Your task to perform on an android device: Show the shopping cart on amazon. Add "alienware area 51" to the cart on amazon, then select checkout. Image 0: 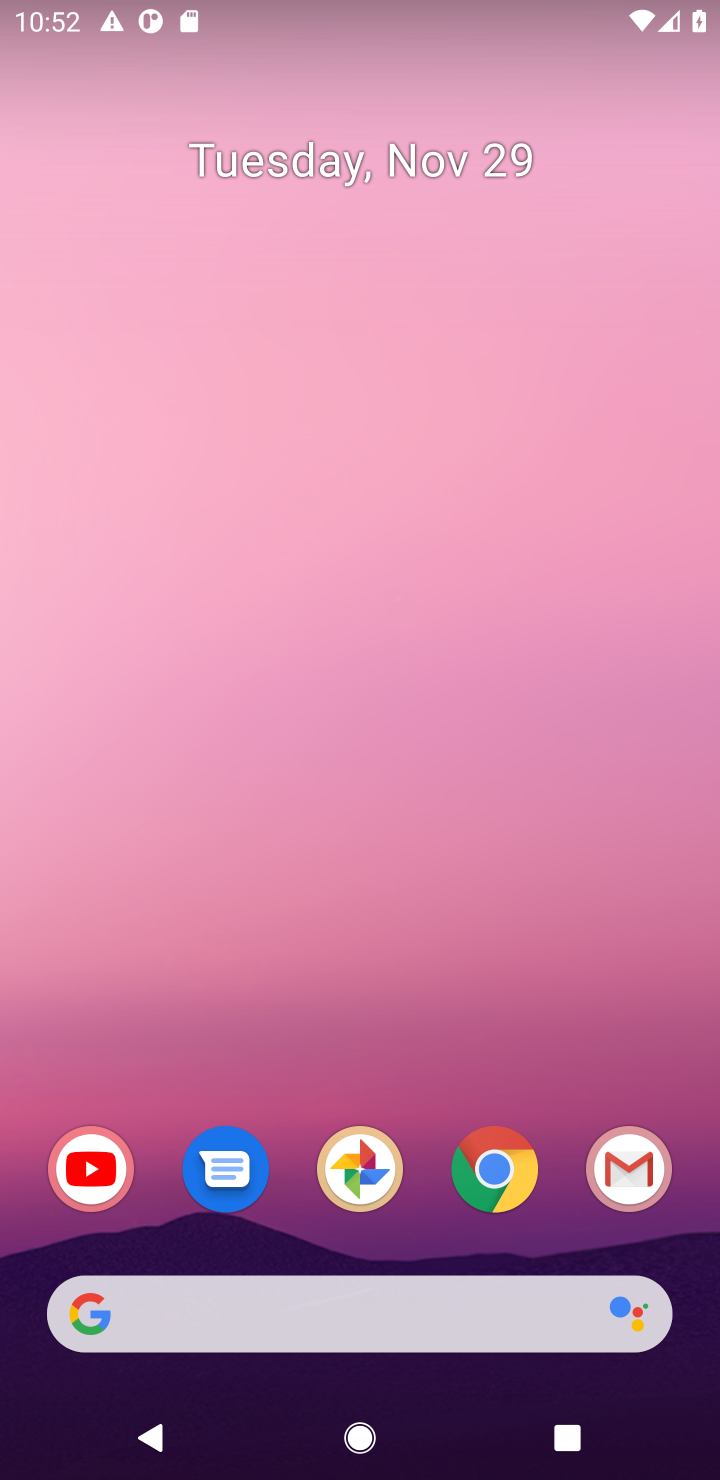
Step 0: click (356, 1308)
Your task to perform on an android device: Show the shopping cart on amazon. Add "alienware area 51" to the cart on amazon, then select checkout. Image 1: 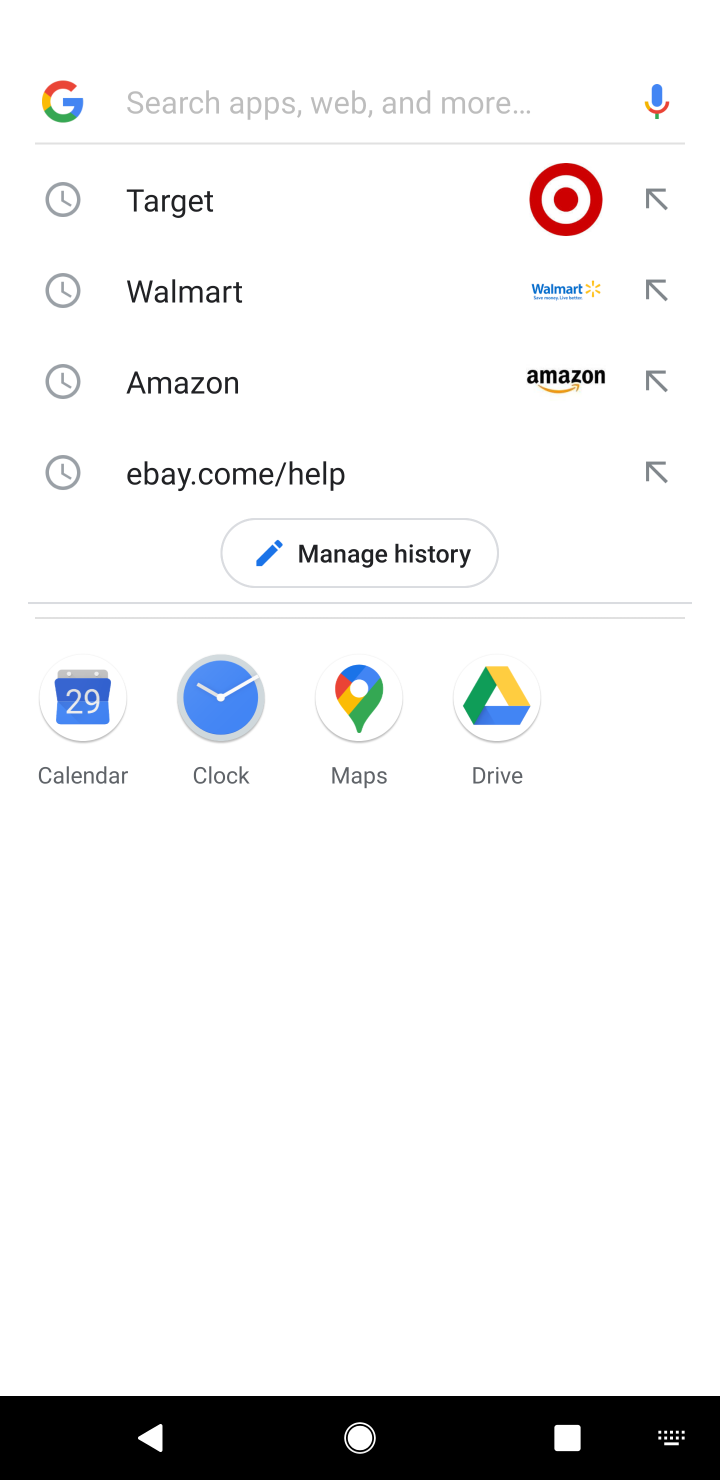
Step 1: click (211, 381)
Your task to perform on an android device: Show the shopping cart on amazon. Add "alienware area 51" to the cart on amazon, then select checkout. Image 2: 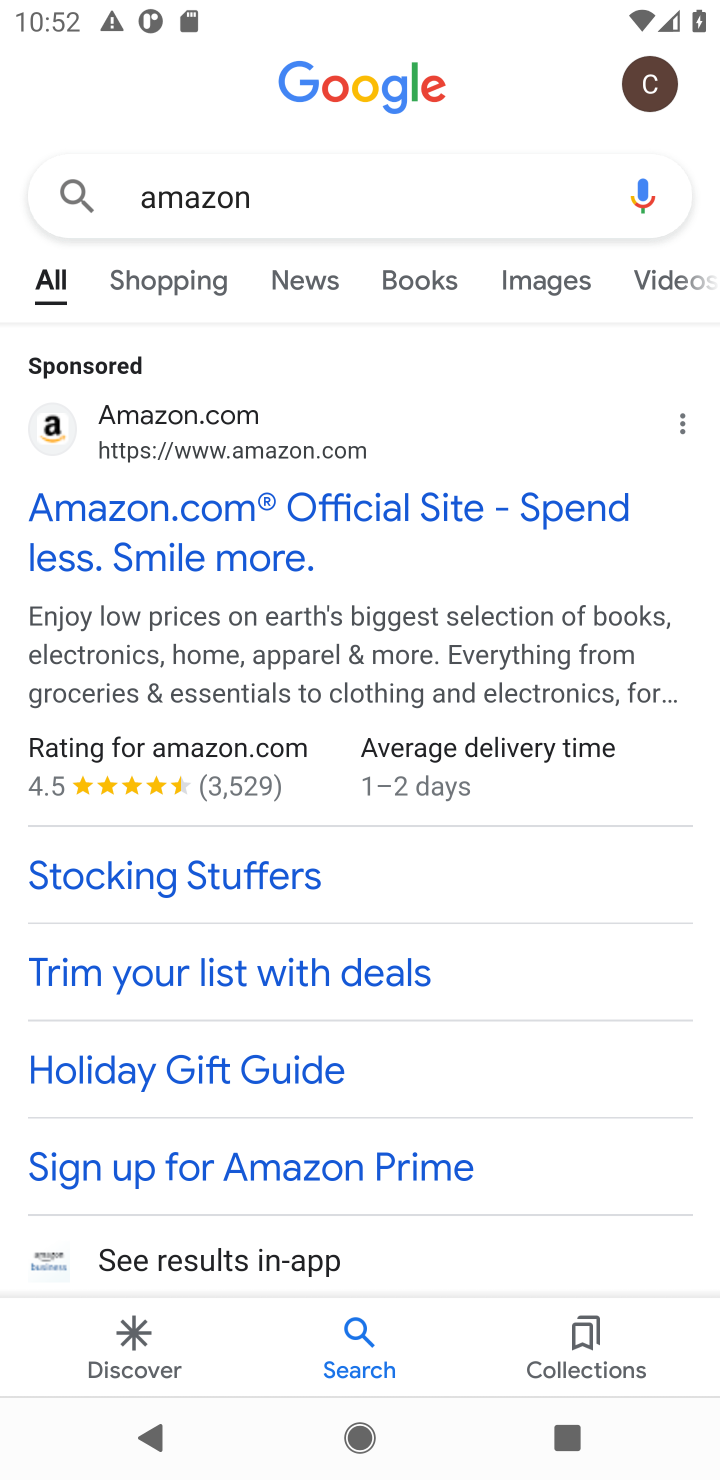
Step 2: click (112, 545)
Your task to perform on an android device: Show the shopping cart on amazon. Add "alienware area 51" to the cart on amazon, then select checkout. Image 3: 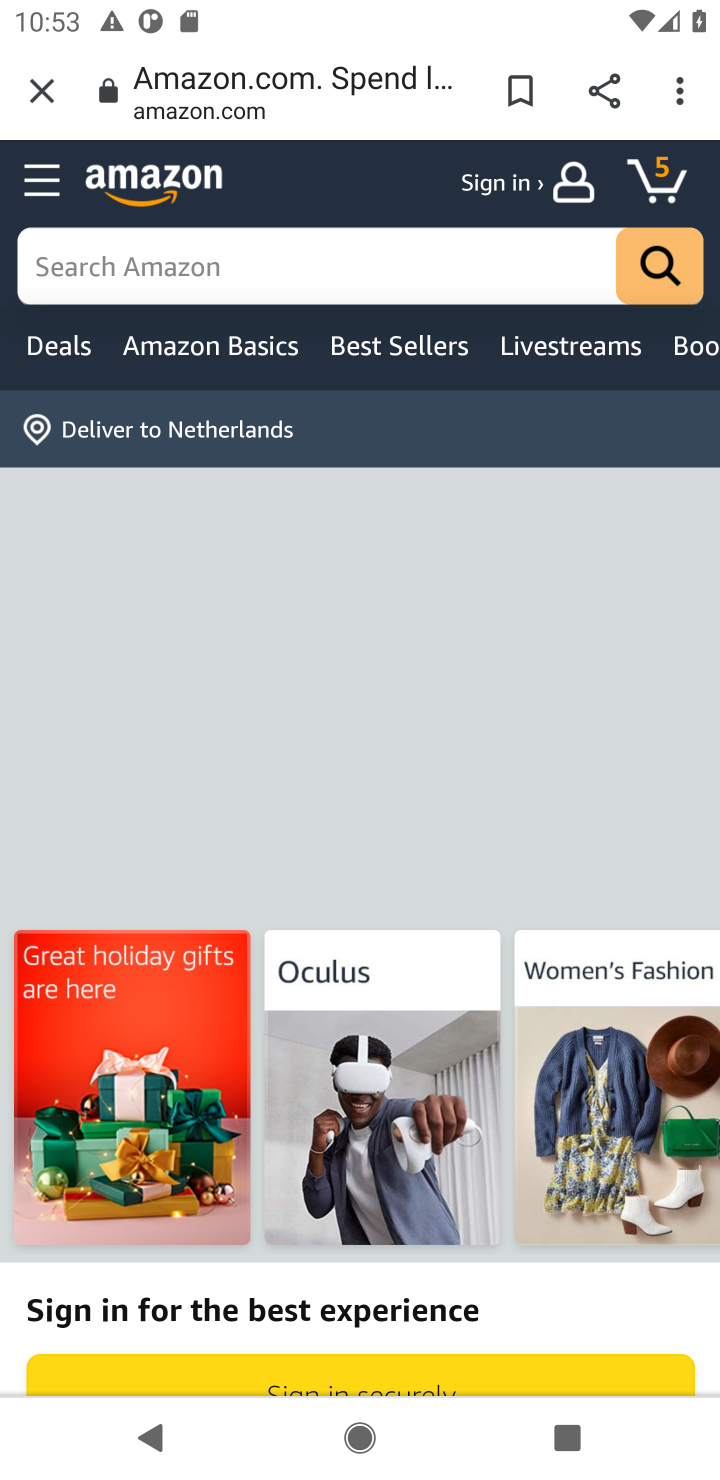
Step 3: click (147, 258)
Your task to perform on an android device: Show the shopping cart on amazon. Add "alienware area 51" to the cart on amazon, then select checkout. Image 4: 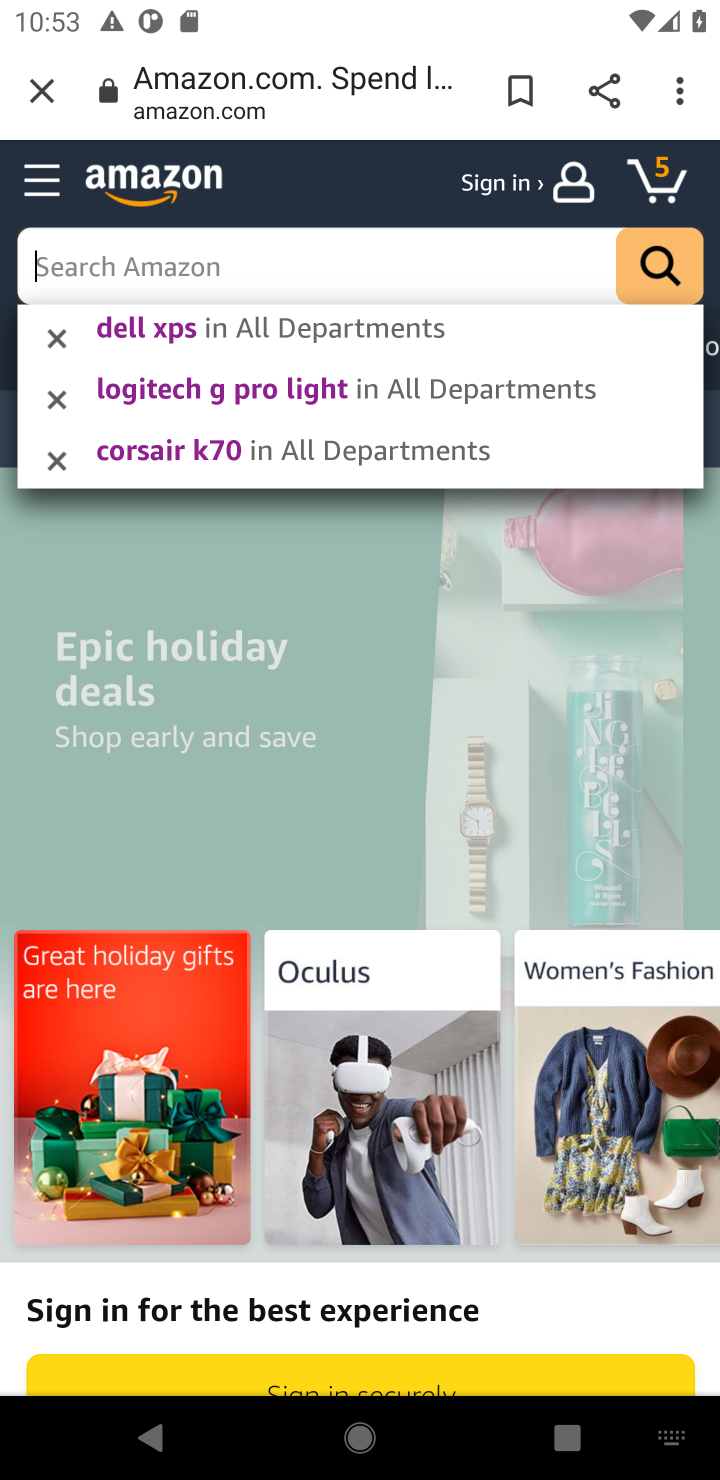
Step 4: type "alienware area 51"
Your task to perform on an android device: Show the shopping cart on amazon. Add "alienware area 51" to the cart on amazon, then select checkout. Image 5: 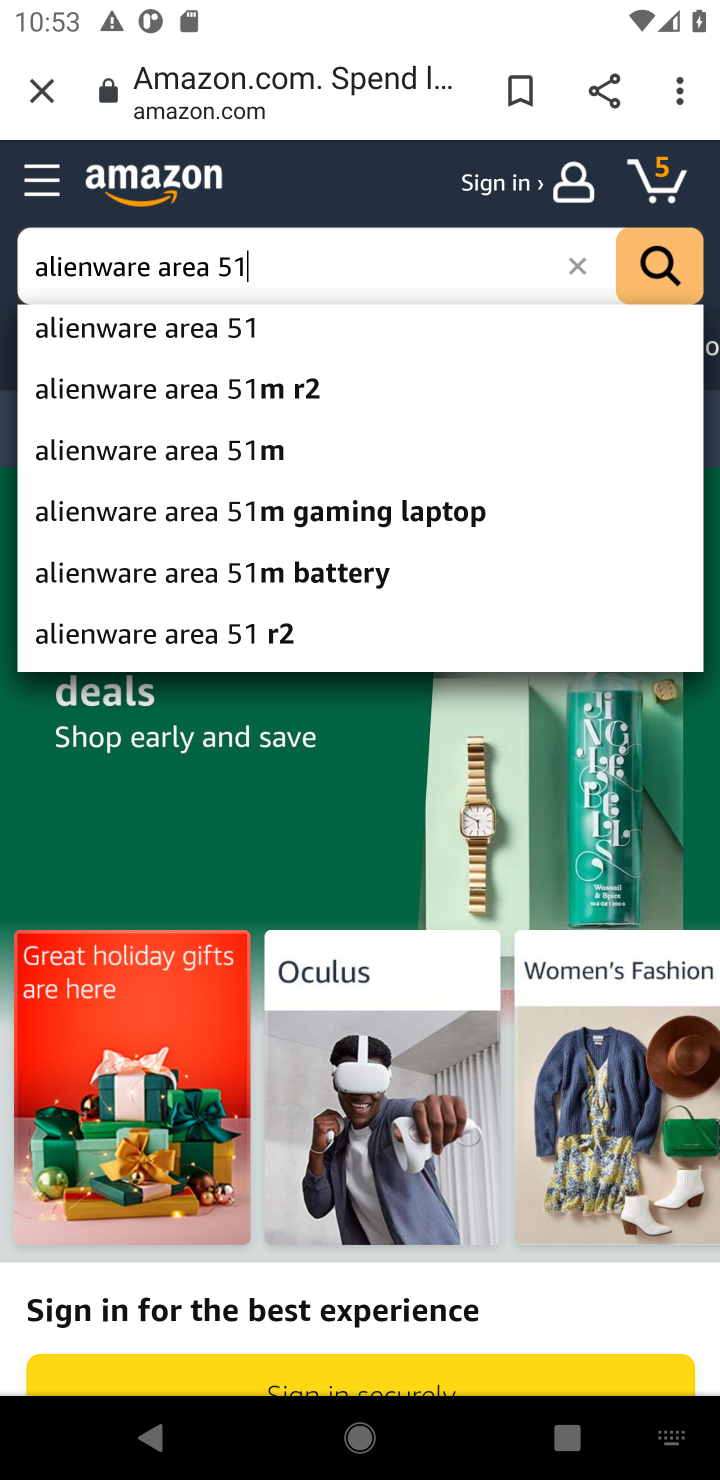
Step 5: click (274, 343)
Your task to perform on an android device: Show the shopping cart on amazon. Add "alienware area 51" to the cart on amazon, then select checkout. Image 6: 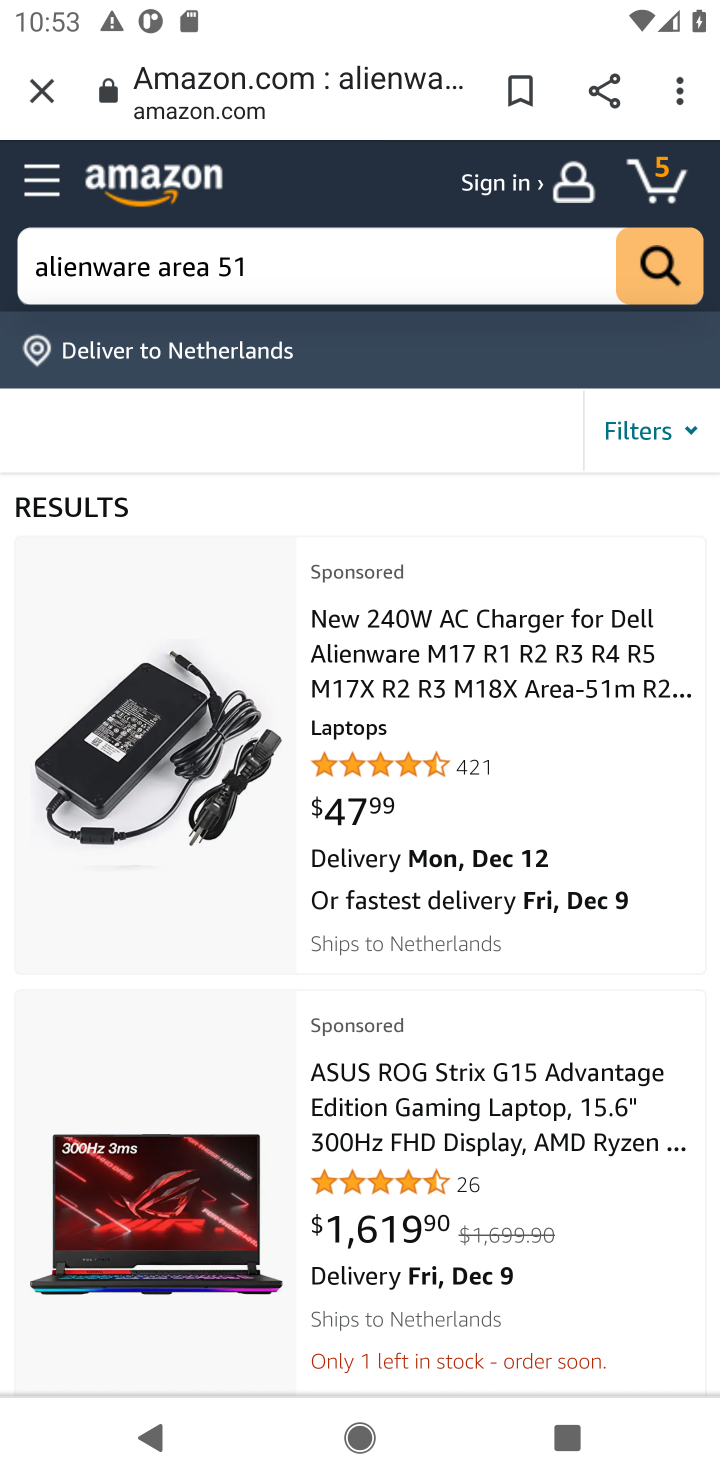
Step 6: click (672, 290)
Your task to perform on an android device: Show the shopping cart on amazon. Add "alienware area 51" to the cart on amazon, then select checkout. Image 7: 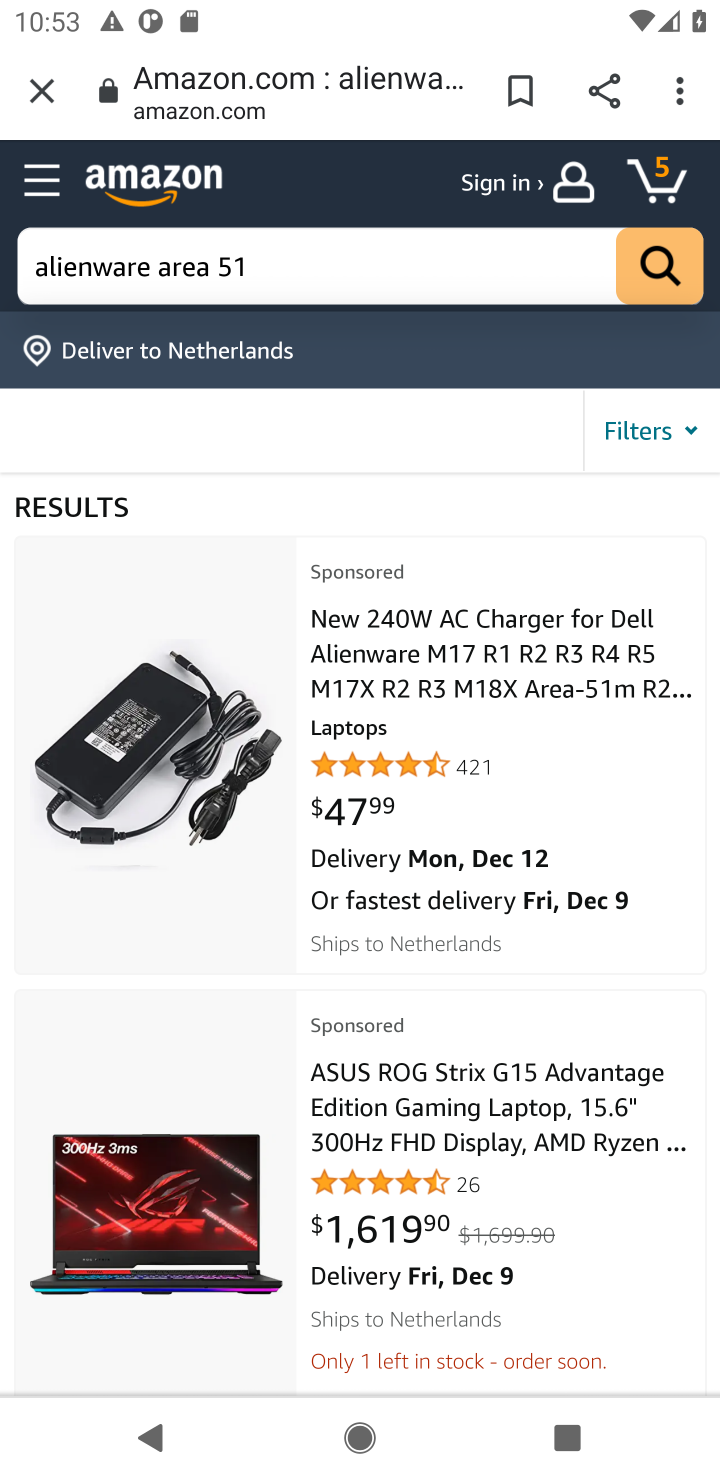
Step 7: click (652, 268)
Your task to perform on an android device: Show the shopping cart on amazon. Add "alienware area 51" to the cart on amazon, then select checkout. Image 8: 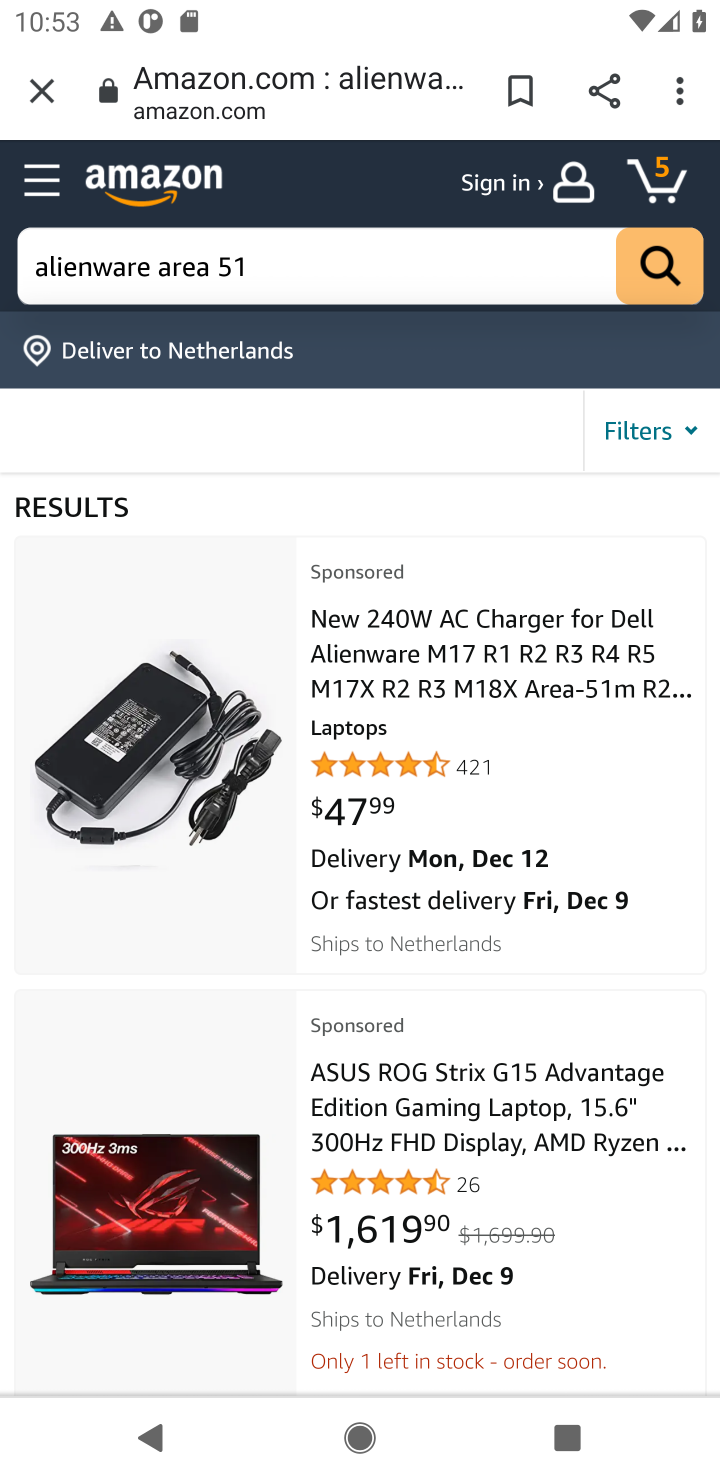
Step 8: task complete